Your task to perform on an android device: all mails in gmail Image 0: 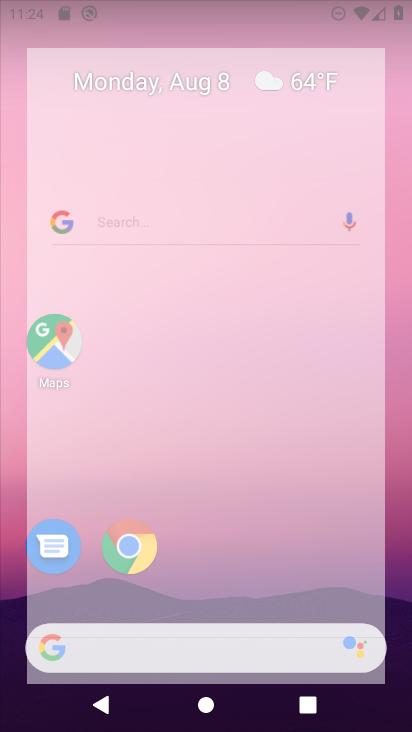
Step 0: drag from (218, 580) to (211, 56)
Your task to perform on an android device: all mails in gmail Image 1: 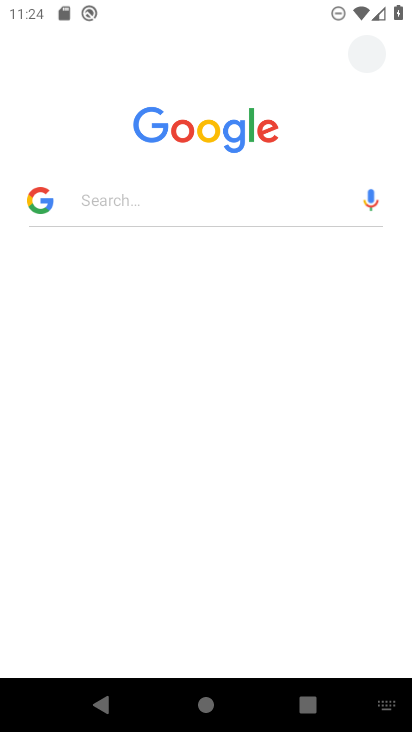
Step 1: press home button
Your task to perform on an android device: all mails in gmail Image 2: 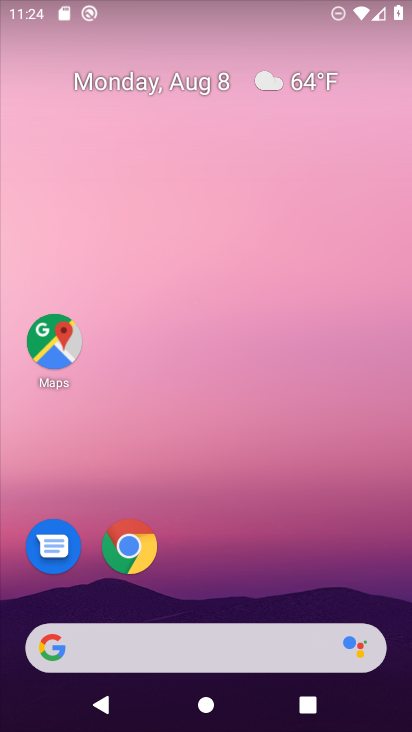
Step 2: drag from (211, 607) to (226, 54)
Your task to perform on an android device: all mails in gmail Image 3: 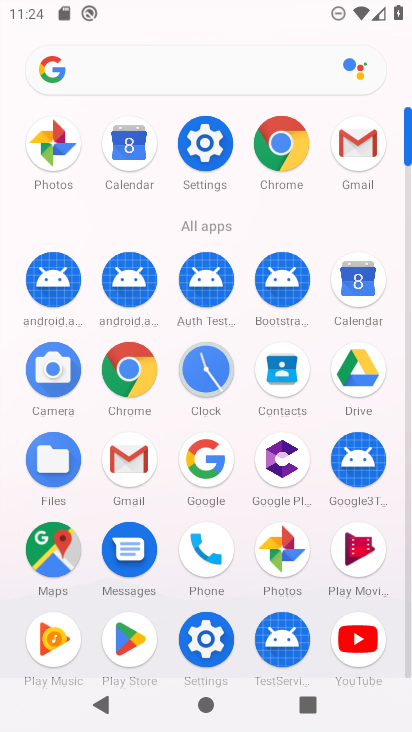
Step 3: click (127, 450)
Your task to perform on an android device: all mails in gmail Image 4: 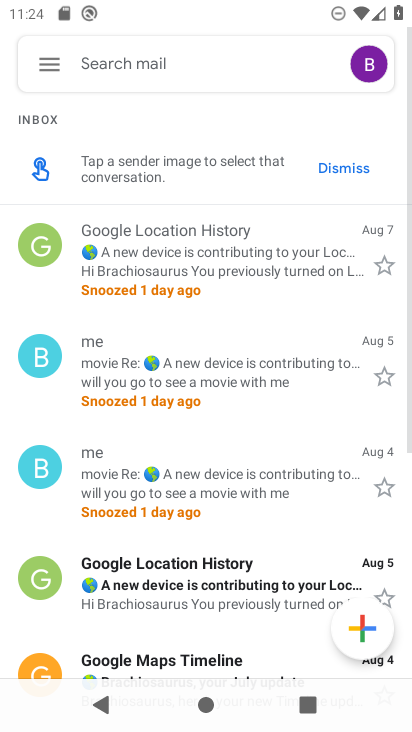
Step 4: click (44, 65)
Your task to perform on an android device: all mails in gmail Image 5: 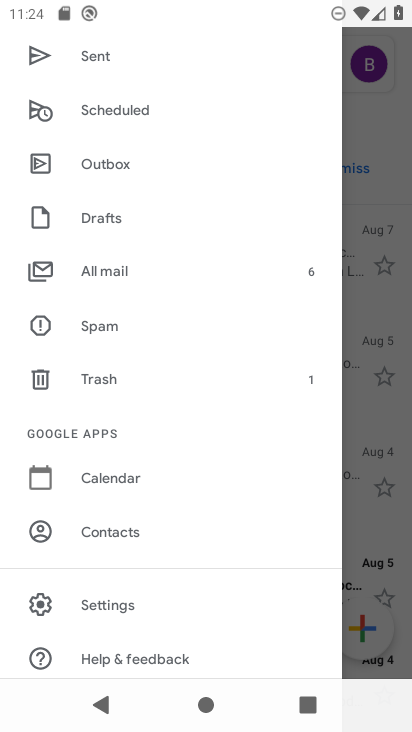
Step 5: click (134, 263)
Your task to perform on an android device: all mails in gmail Image 6: 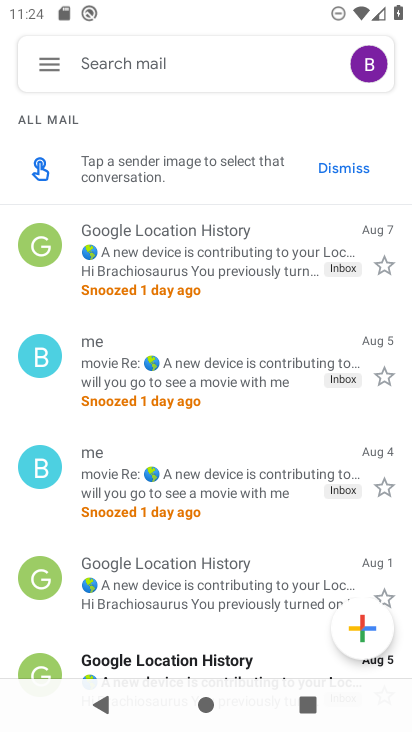
Step 6: task complete